Your task to perform on an android device: toggle pop-ups in chrome Image 0: 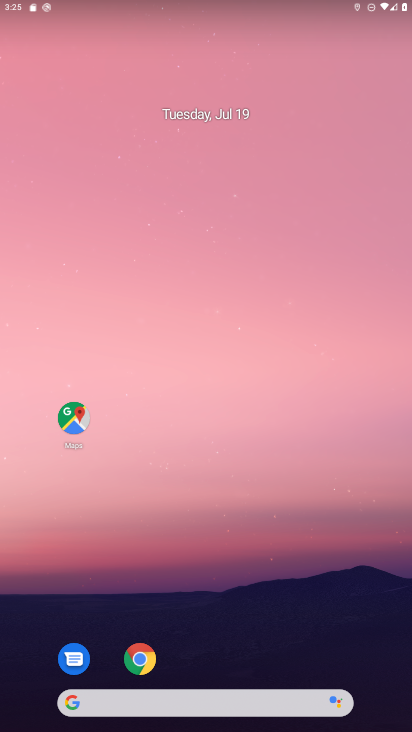
Step 0: click (140, 660)
Your task to perform on an android device: toggle pop-ups in chrome Image 1: 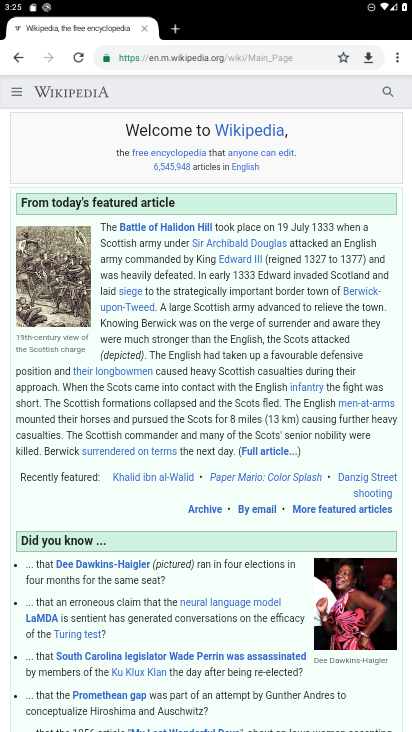
Step 1: click (394, 62)
Your task to perform on an android device: toggle pop-ups in chrome Image 2: 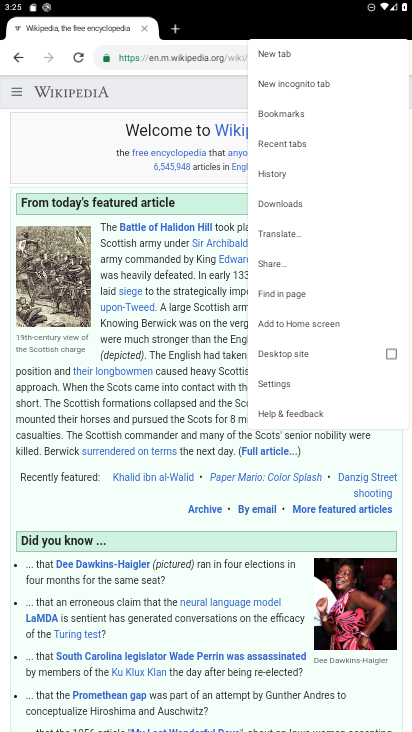
Step 2: click (315, 380)
Your task to perform on an android device: toggle pop-ups in chrome Image 3: 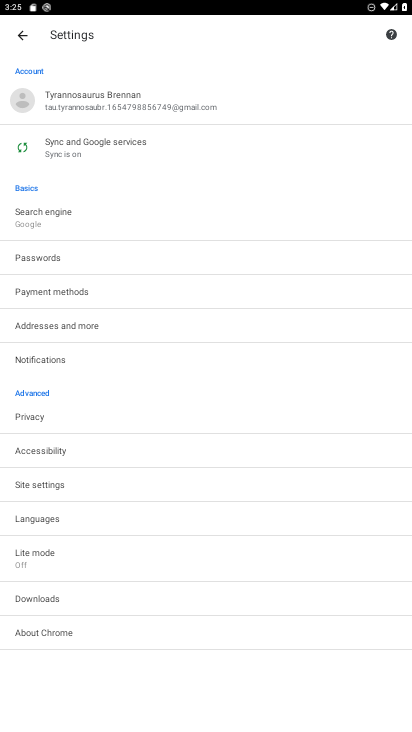
Step 3: click (83, 478)
Your task to perform on an android device: toggle pop-ups in chrome Image 4: 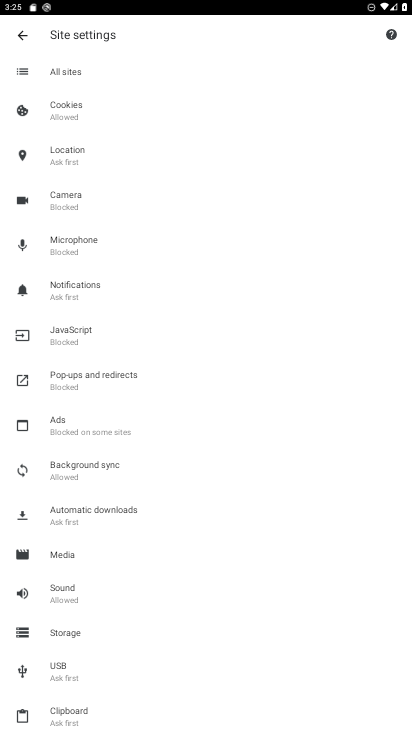
Step 4: click (107, 385)
Your task to perform on an android device: toggle pop-ups in chrome Image 5: 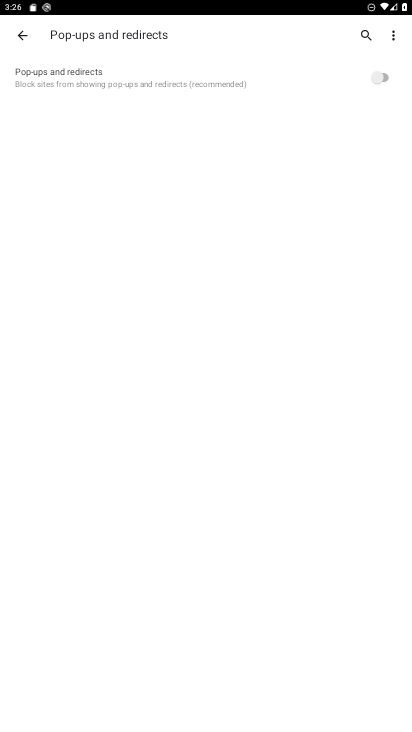
Step 5: click (356, 88)
Your task to perform on an android device: toggle pop-ups in chrome Image 6: 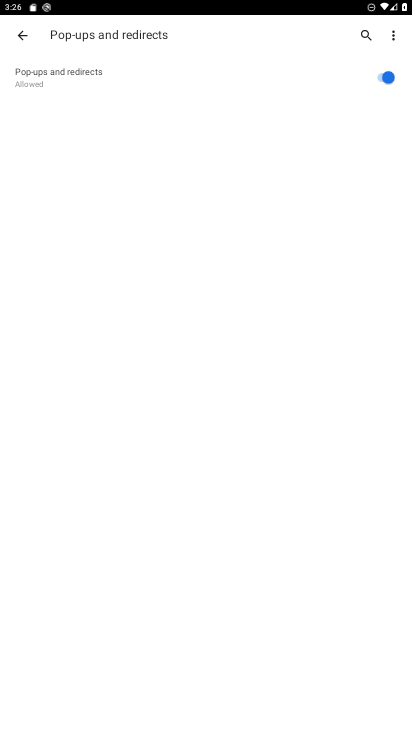
Step 6: task complete